Your task to perform on an android device: Open the phone app and click the voicemail tab. Image 0: 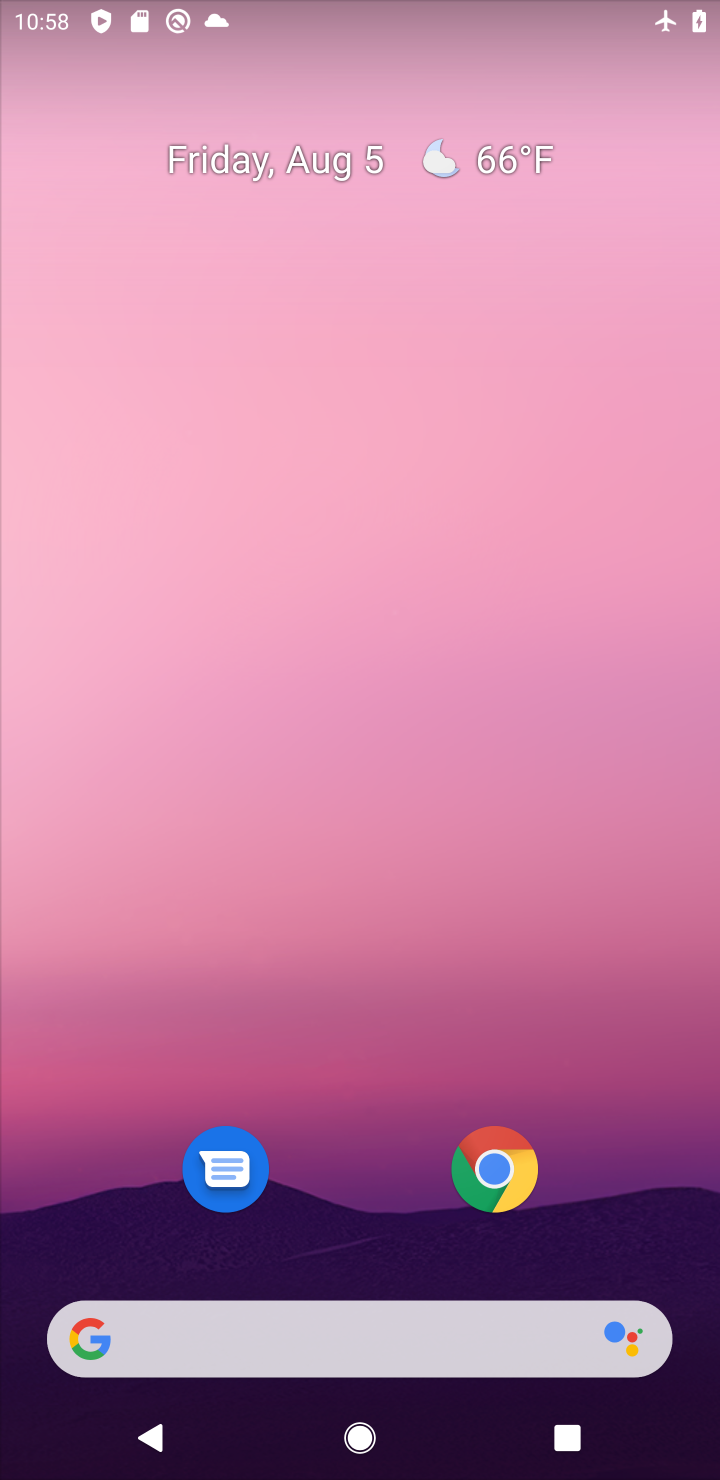
Step 0: drag from (605, 1179) to (613, 172)
Your task to perform on an android device: Open the phone app and click the voicemail tab. Image 1: 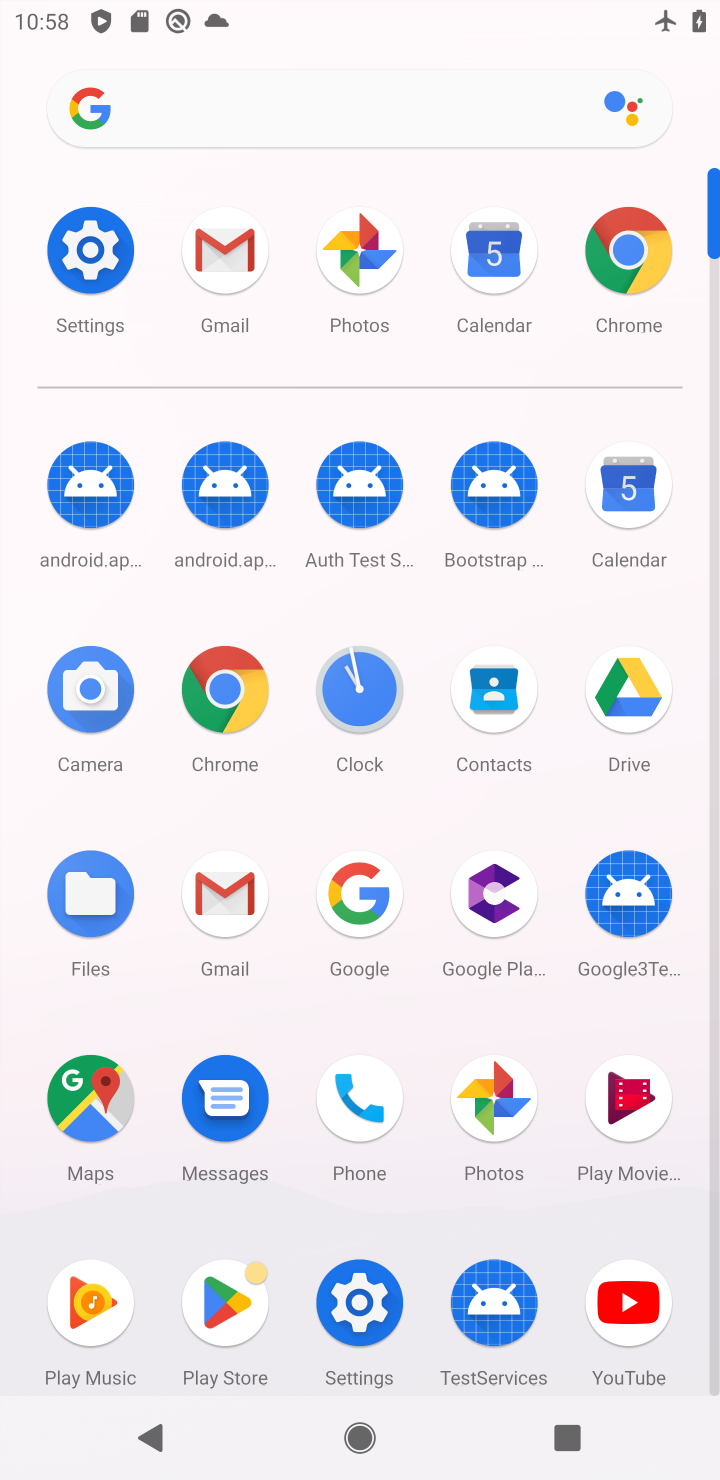
Step 1: click (354, 1097)
Your task to perform on an android device: Open the phone app and click the voicemail tab. Image 2: 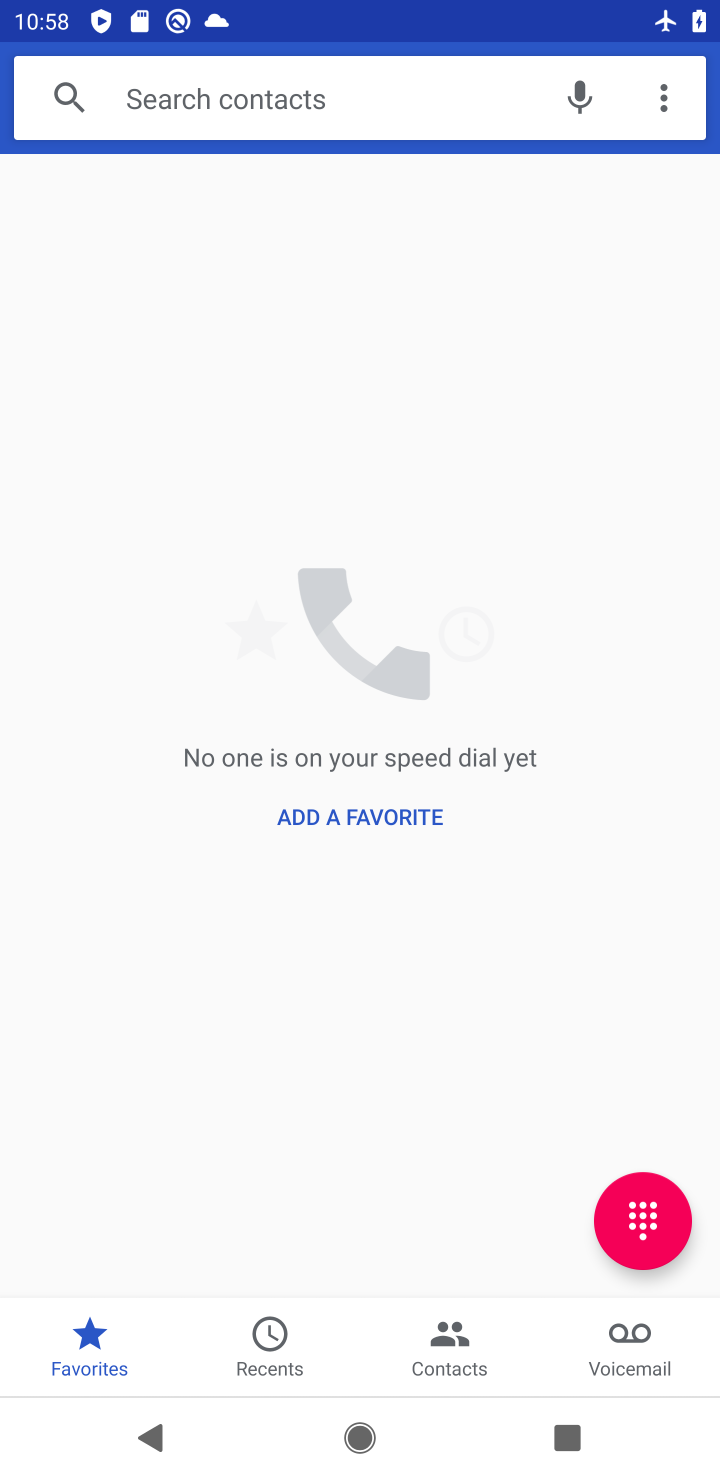
Step 2: click (639, 1342)
Your task to perform on an android device: Open the phone app and click the voicemail tab. Image 3: 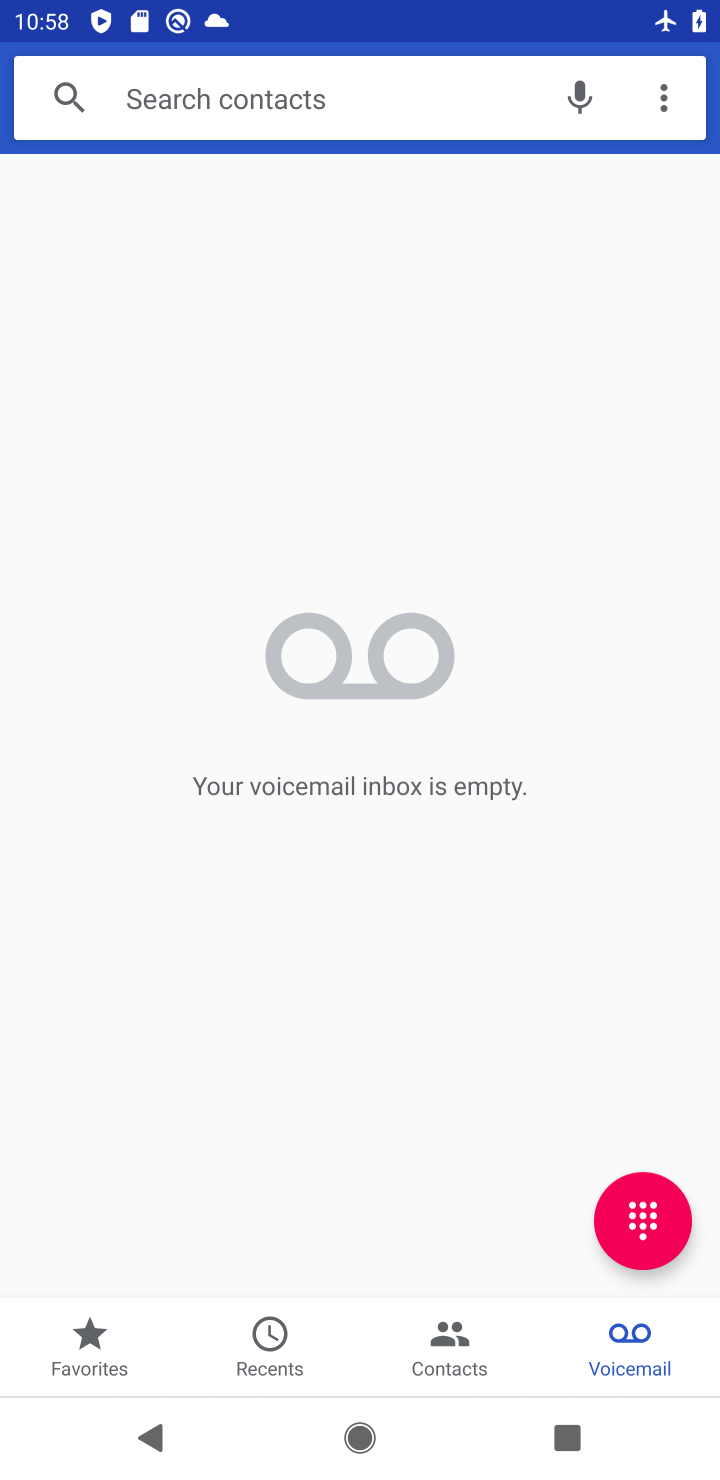
Step 3: task complete